Your task to perform on an android device: Open display settings Image 0: 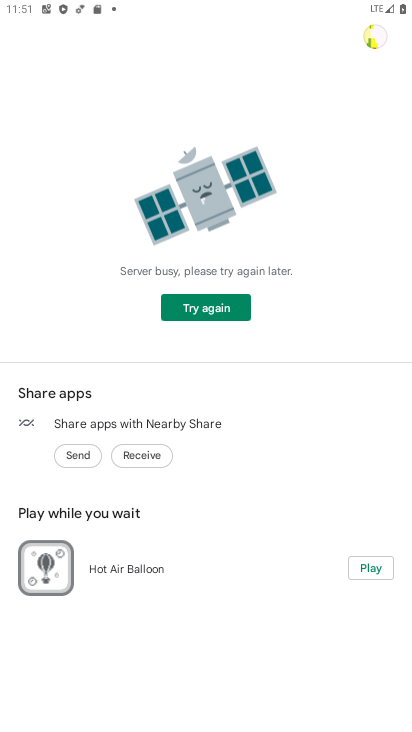
Step 0: press home button
Your task to perform on an android device: Open display settings Image 1: 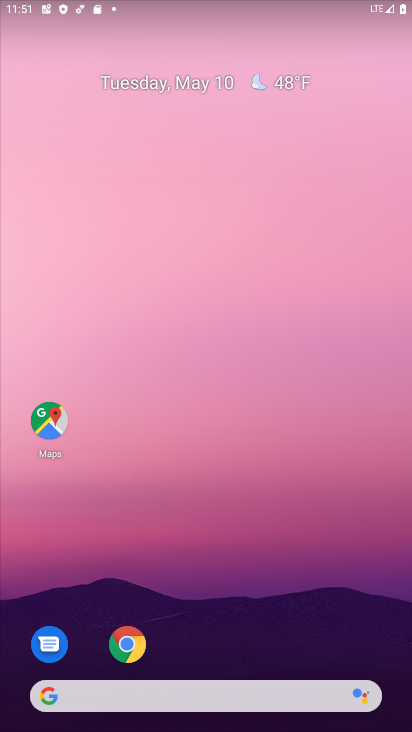
Step 1: drag from (211, 644) to (266, 118)
Your task to perform on an android device: Open display settings Image 2: 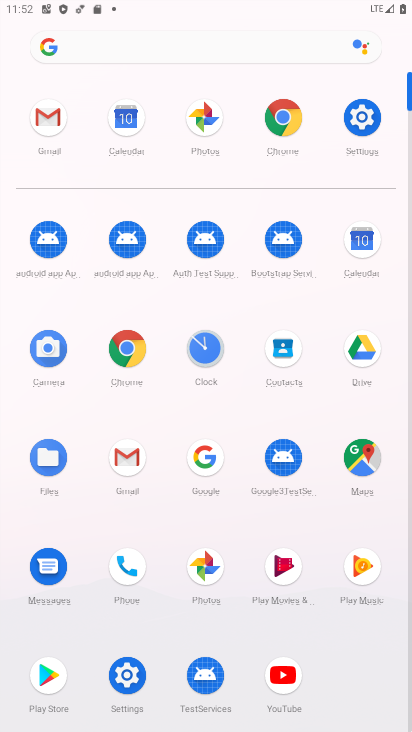
Step 2: click (120, 685)
Your task to perform on an android device: Open display settings Image 3: 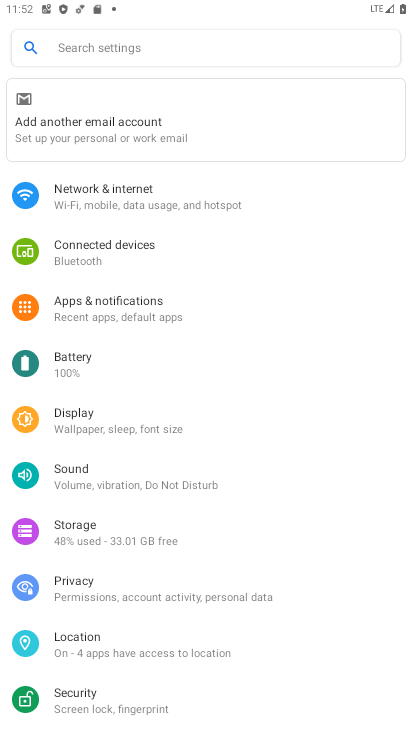
Step 3: click (104, 428)
Your task to perform on an android device: Open display settings Image 4: 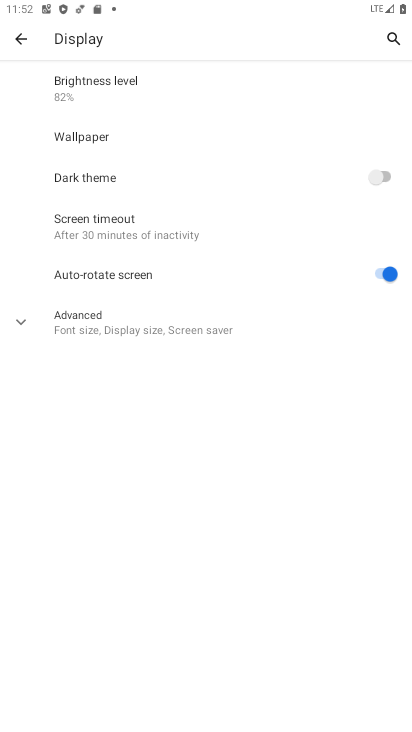
Step 4: task complete